Your task to perform on an android device: Do I have any events tomorrow? Image 0: 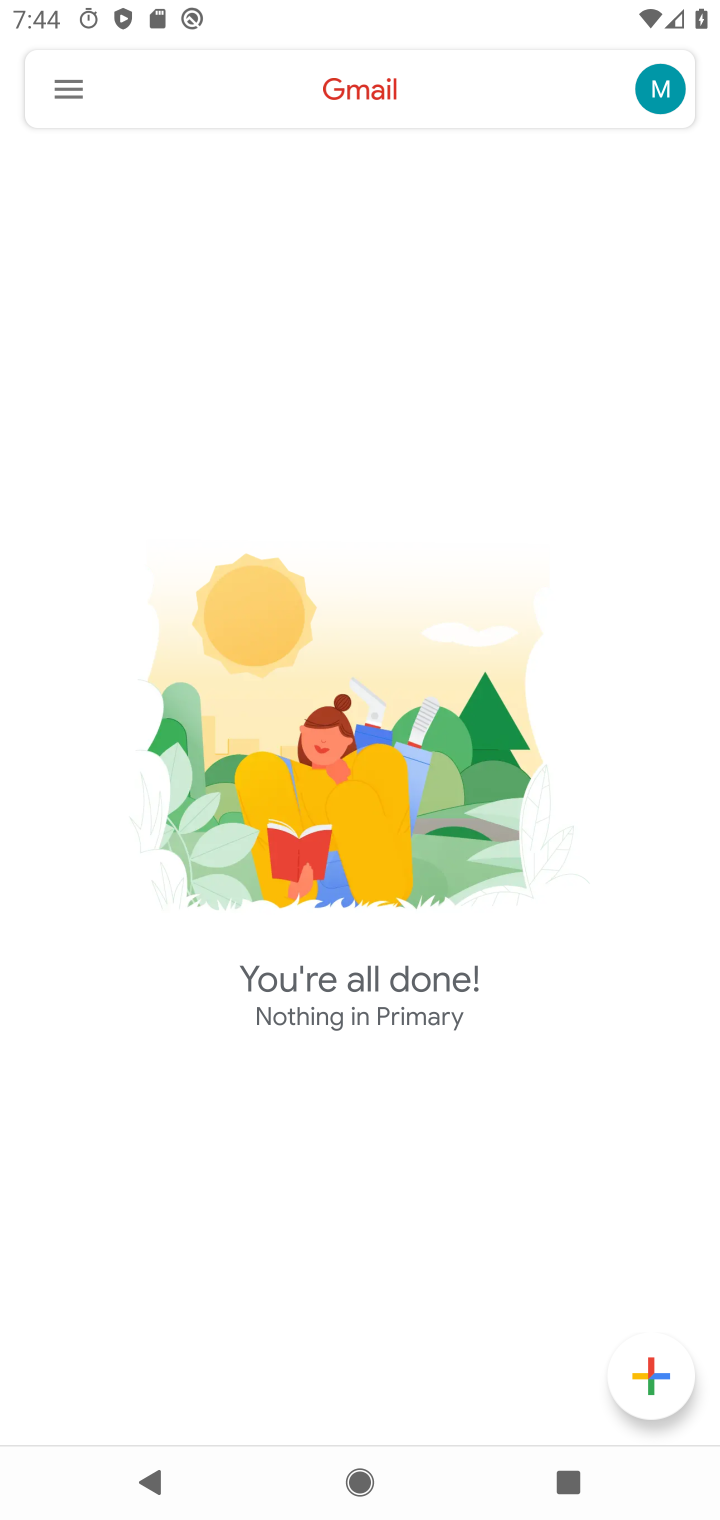
Step 0: click (530, 397)
Your task to perform on an android device: Do I have any events tomorrow? Image 1: 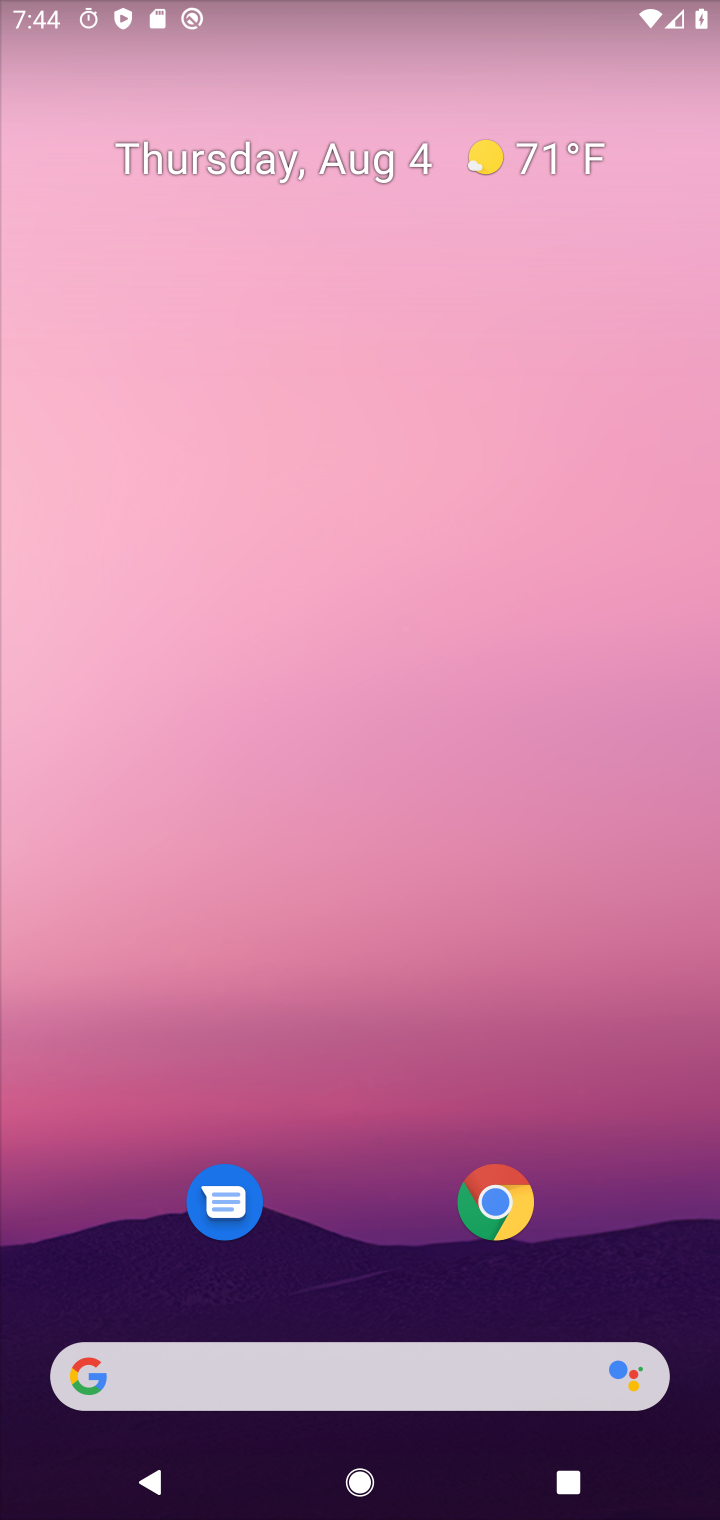
Step 1: drag from (292, 1166) to (416, 556)
Your task to perform on an android device: Do I have any events tomorrow? Image 2: 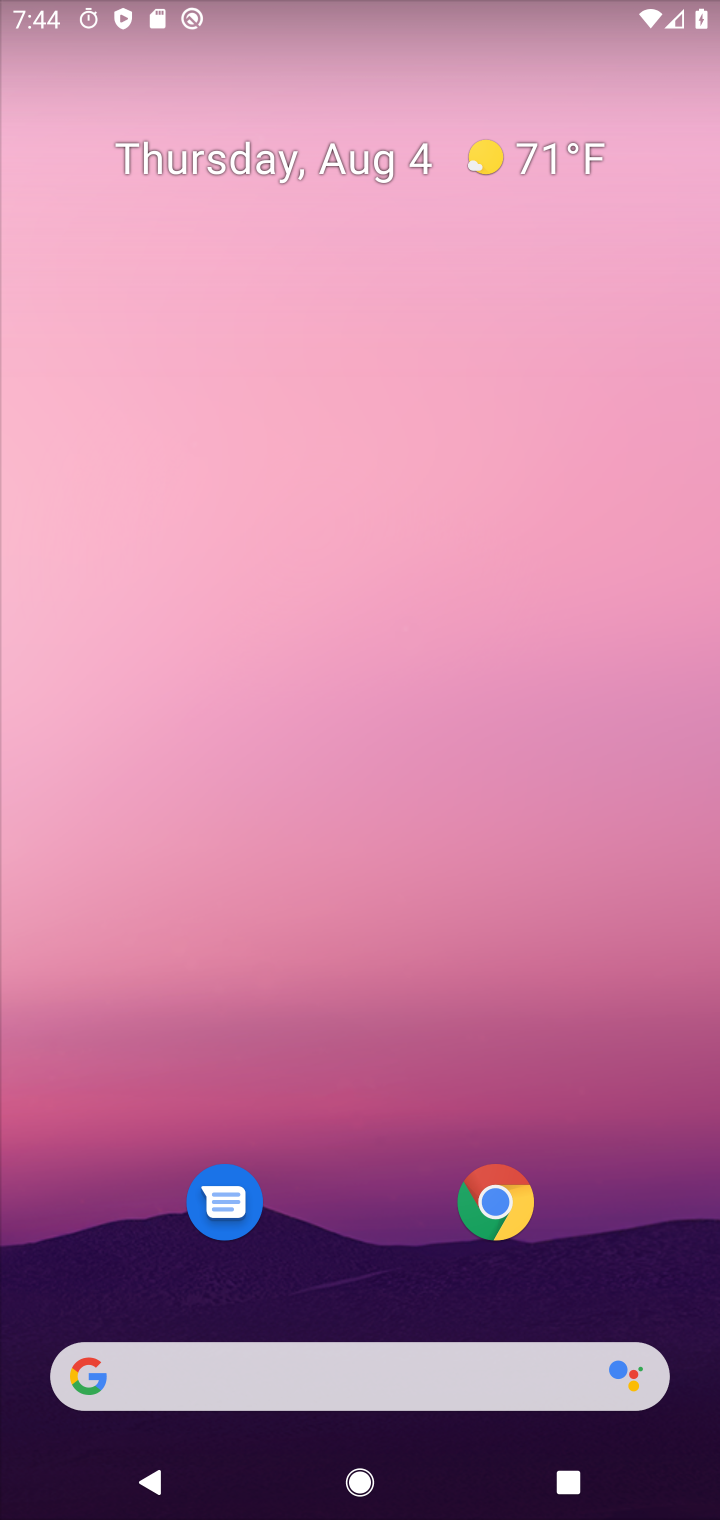
Step 2: drag from (399, 1276) to (324, 318)
Your task to perform on an android device: Do I have any events tomorrow? Image 3: 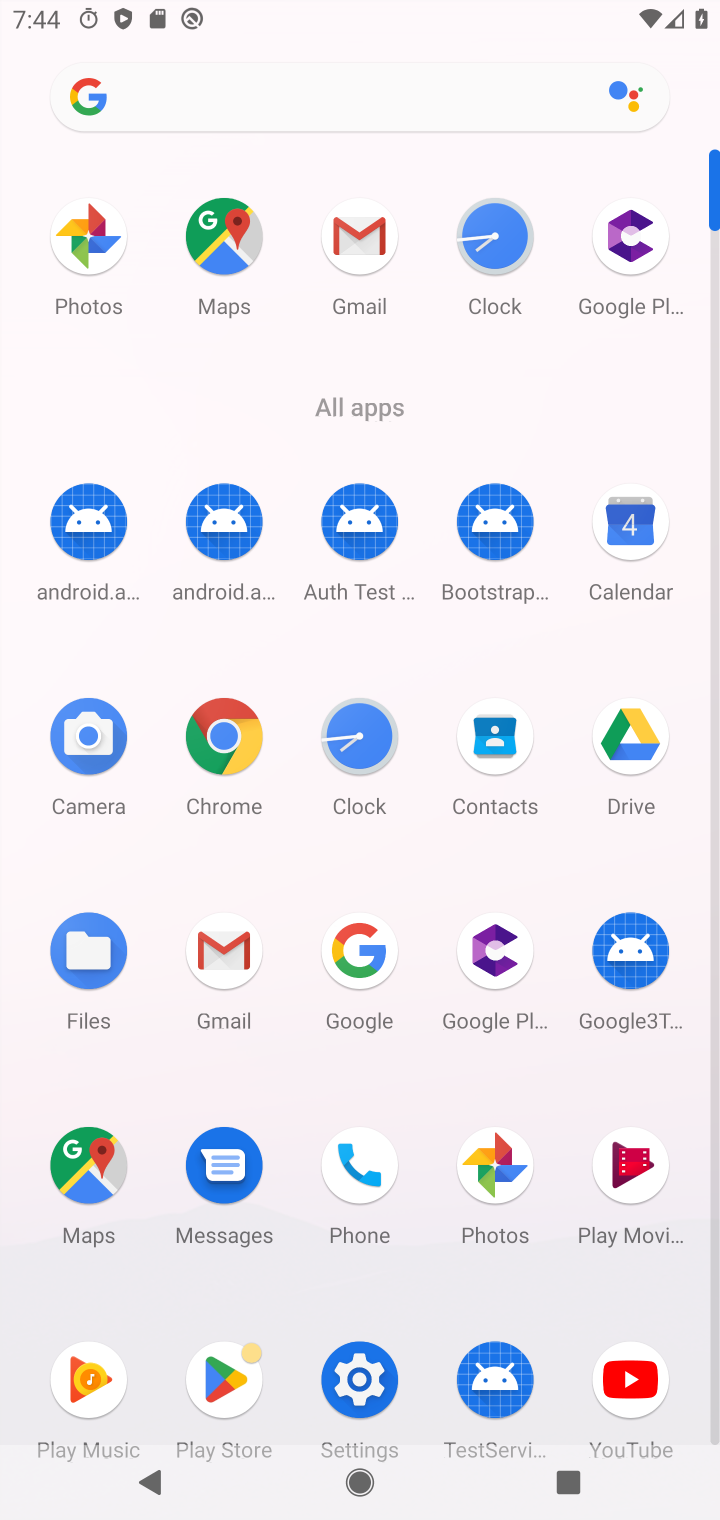
Step 3: click (625, 509)
Your task to perform on an android device: Do I have any events tomorrow? Image 4: 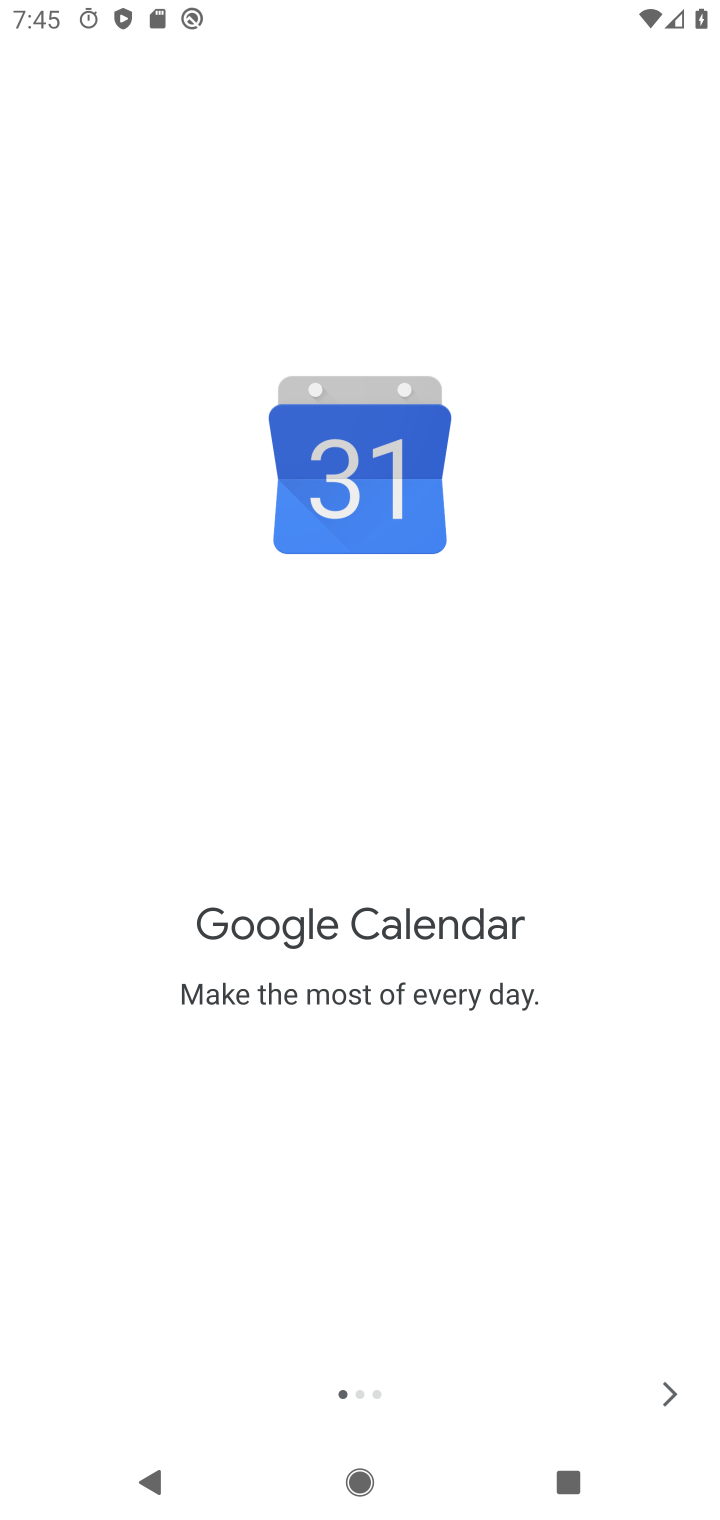
Step 4: click (671, 1377)
Your task to perform on an android device: Do I have any events tomorrow? Image 5: 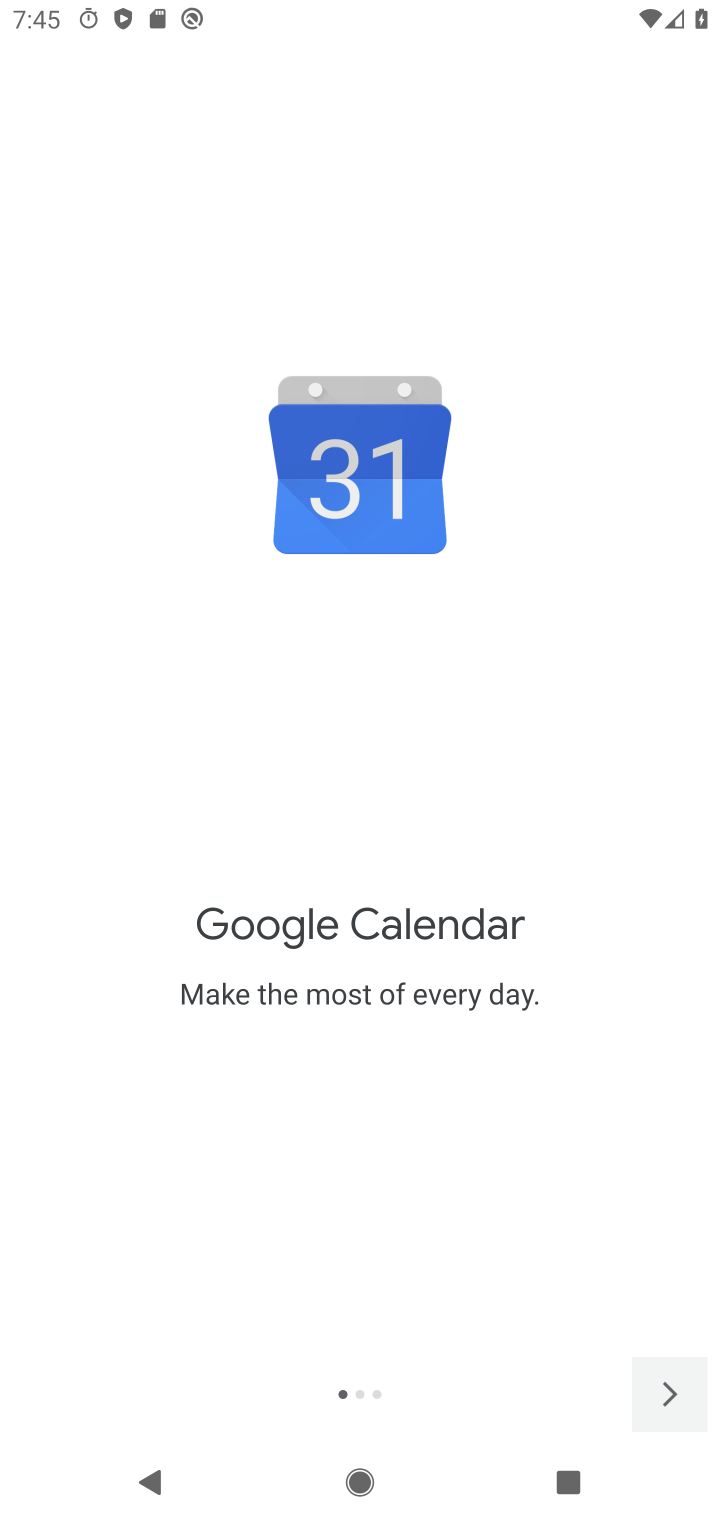
Step 5: click (671, 1372)
Your task to perform on an android device: Do I have any events tomorrow? Image 6: 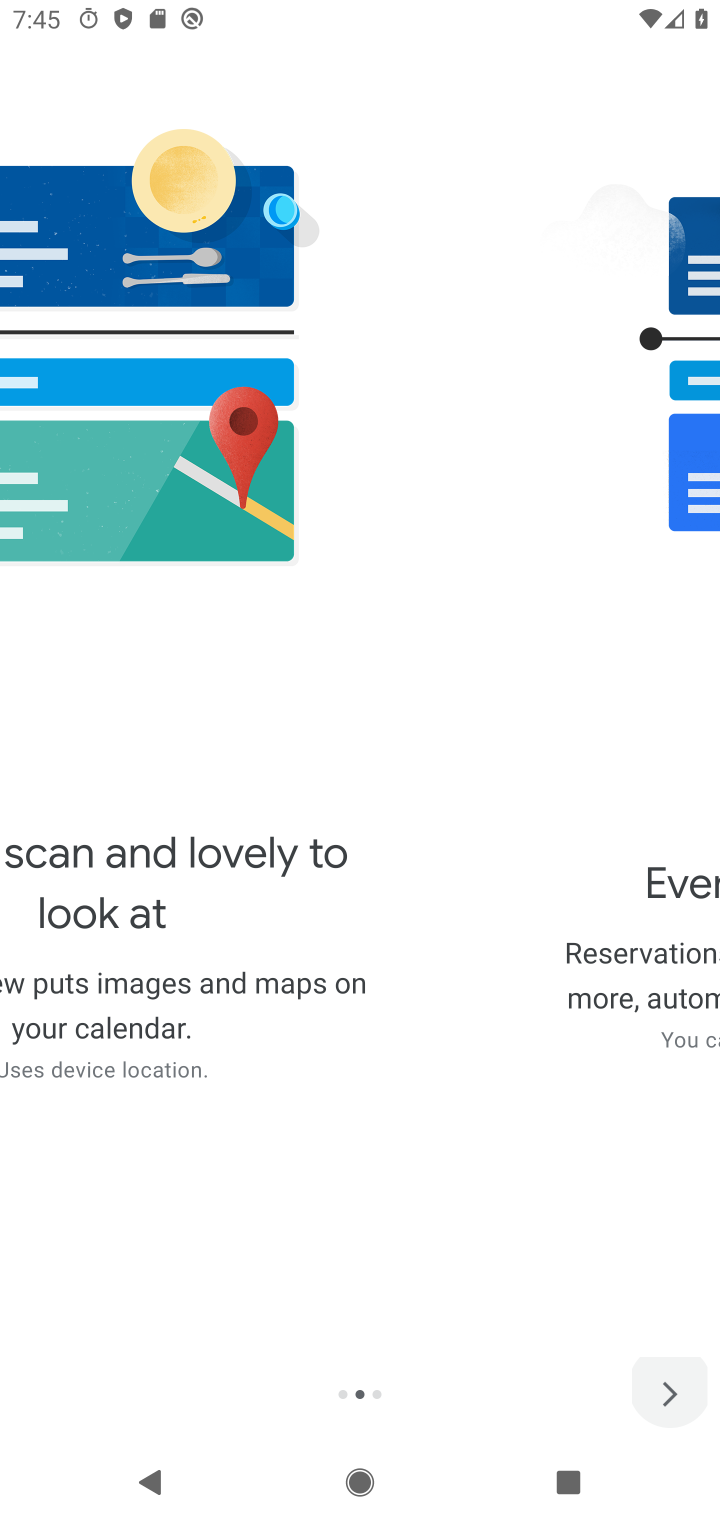
Step 6: click (695, 1396)
Your task to perform on an android device: Do I have any events tomorrow? Image 7: 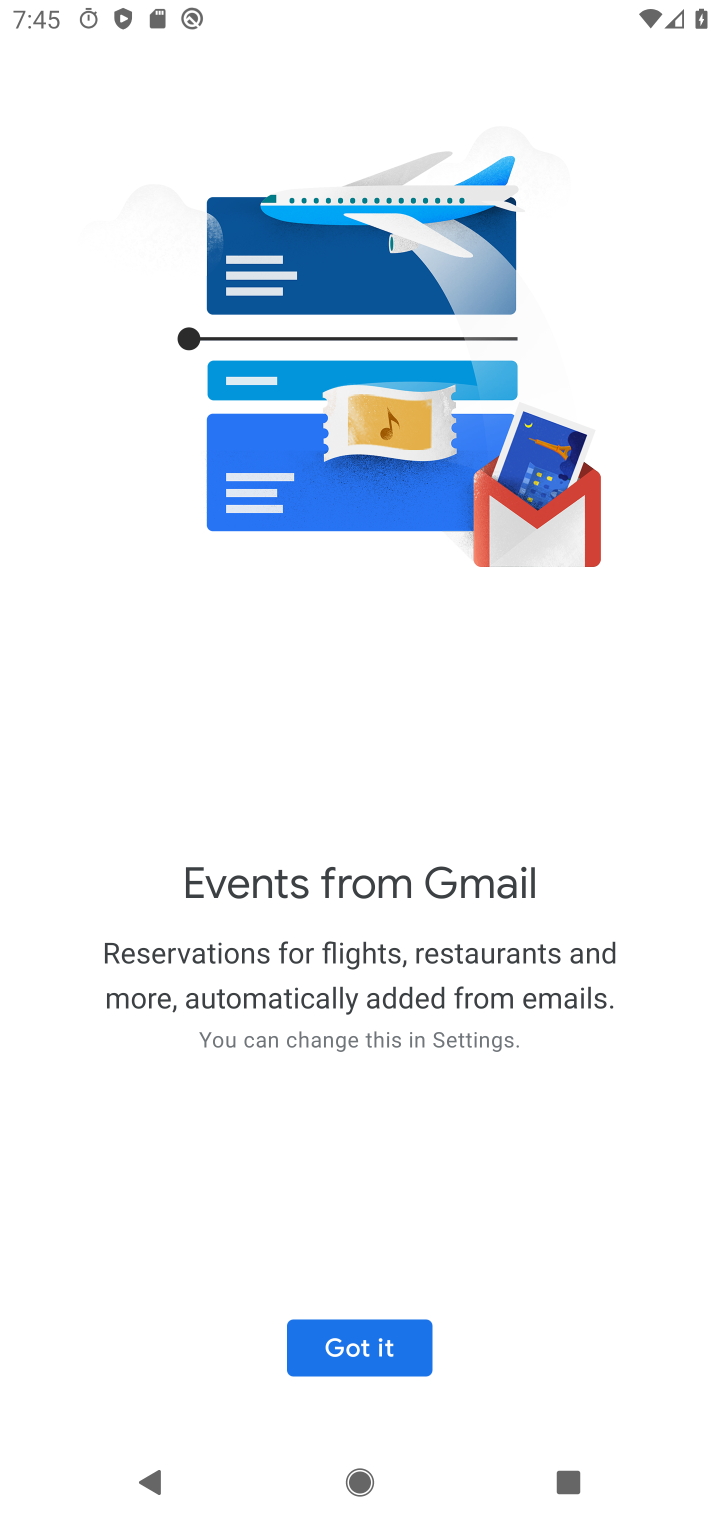
Step 7: click (689, 1377)
Your task to perform on an android device: Do I have any events tomorrow? Image 8: 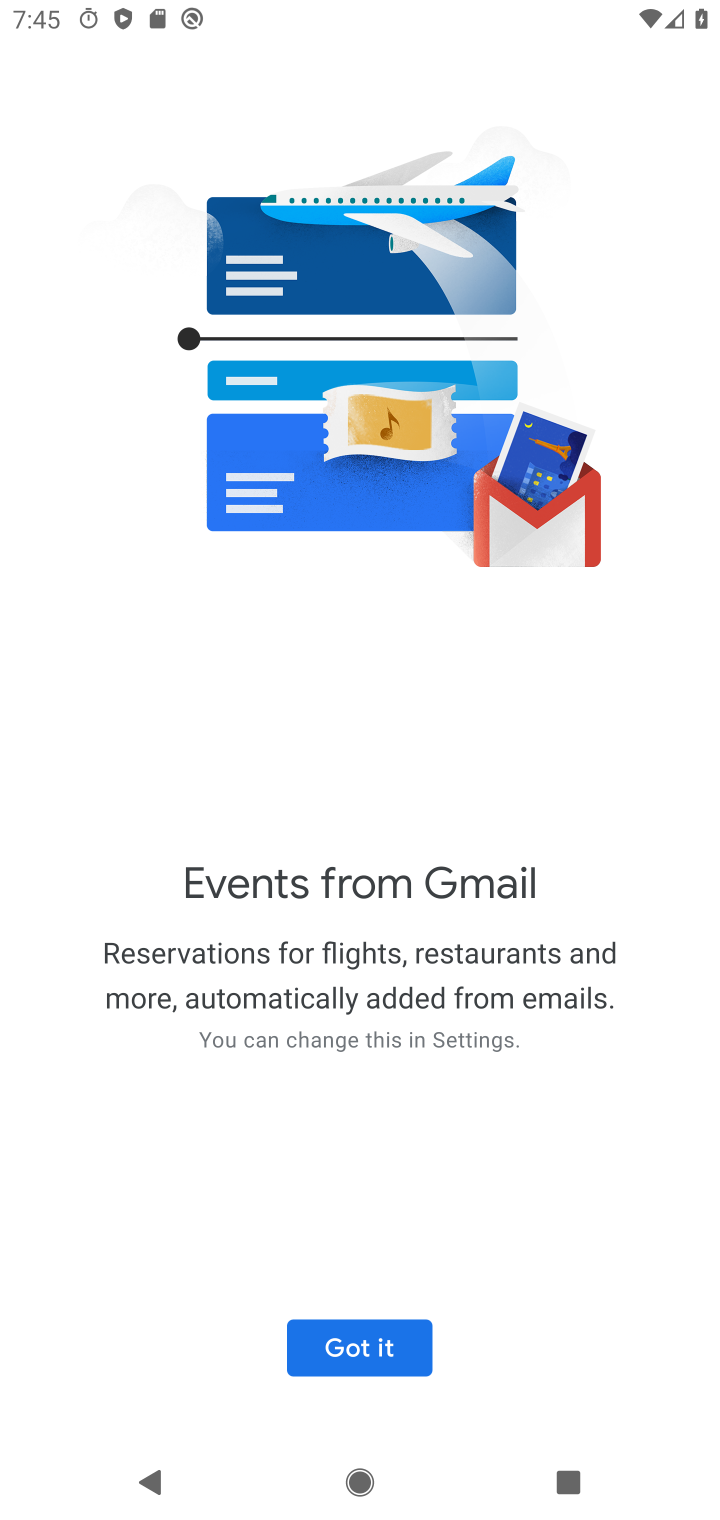
Step 8: click (383, 1347)
Your task to perform on an android device: Do I have any events tomorrow? Image 9: 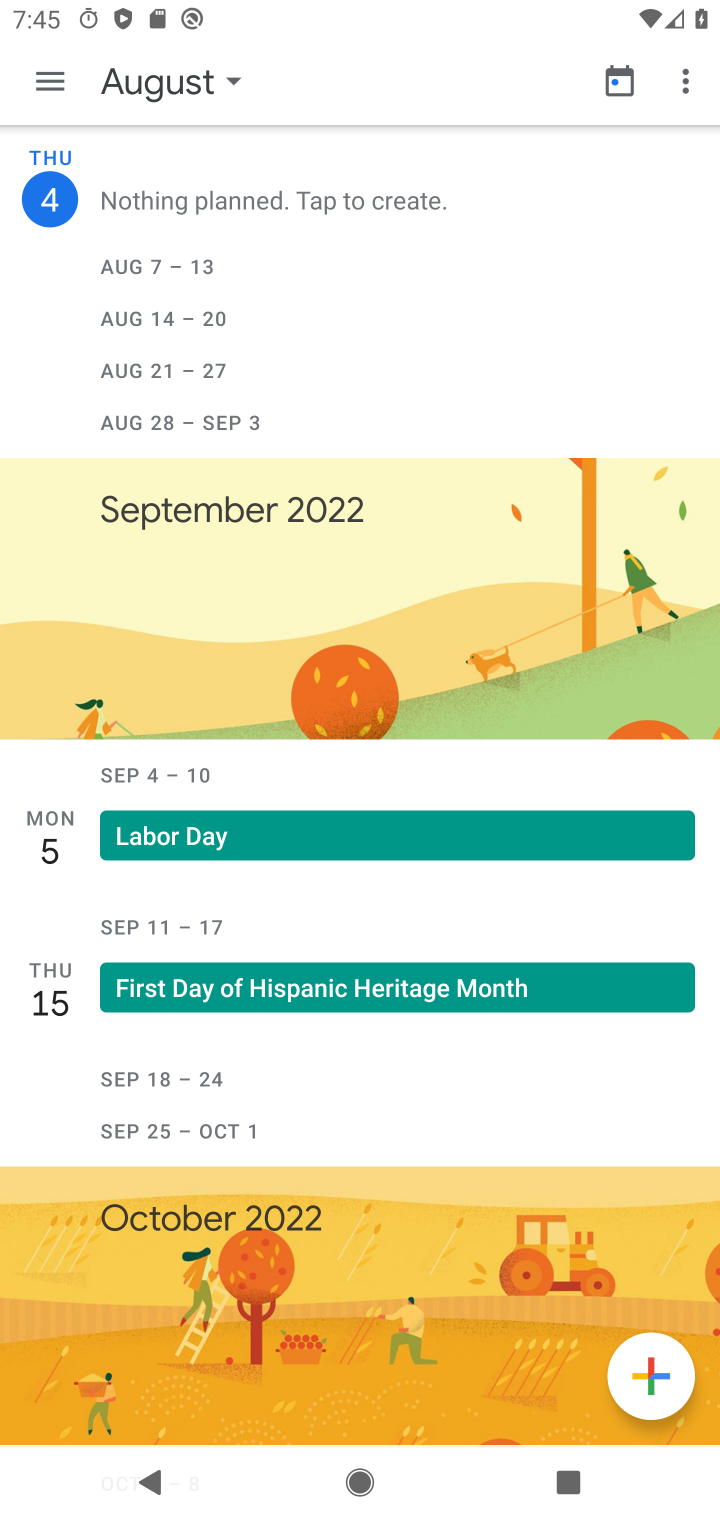
Step 9: click (180, 71)
Your task to perform on an android device: Do I have any events tomorrow? Image 10: 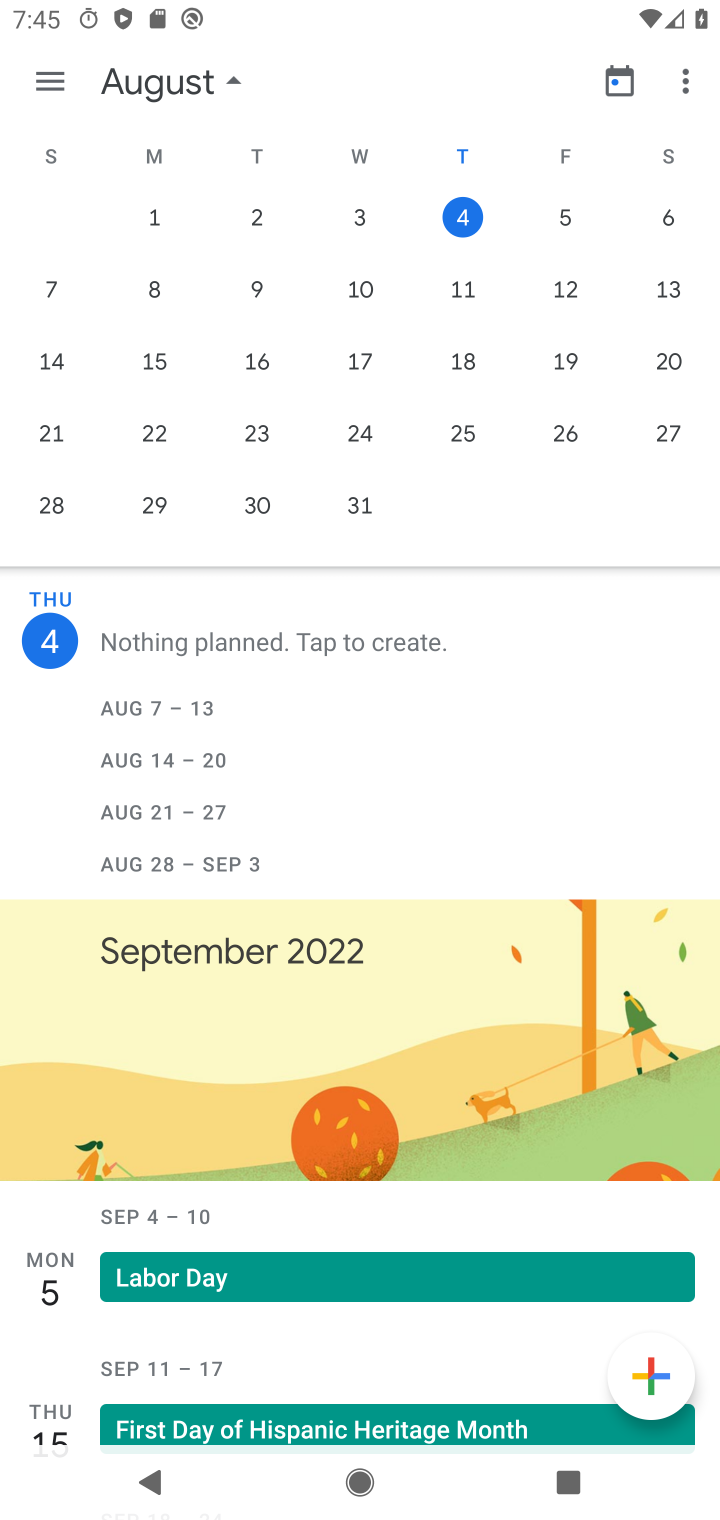
Step 10: click (564, 211)
Your task to perform on an android device: Do I have any events tomorrow? Image 11: 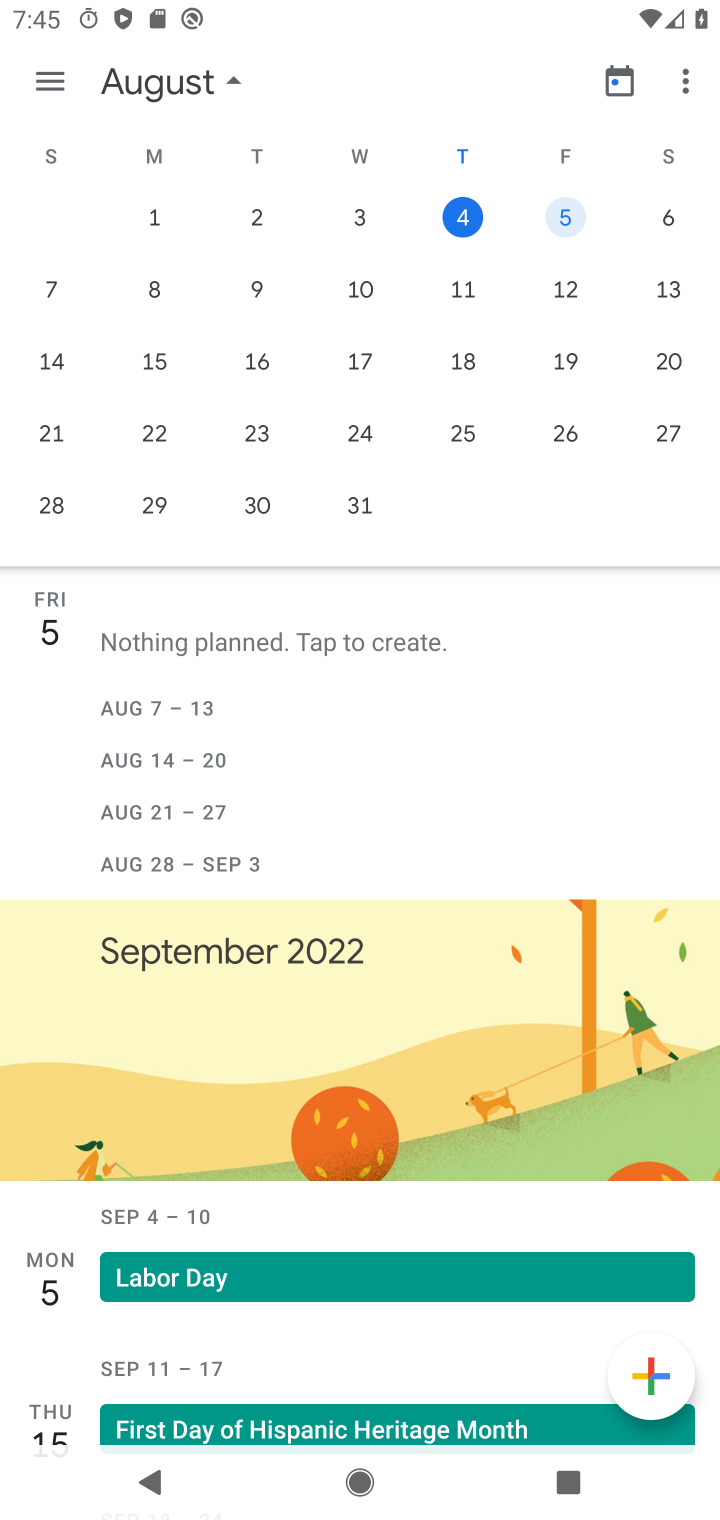
Step 11: task complete